Your task to perform on an android device: add a contact Image 0: 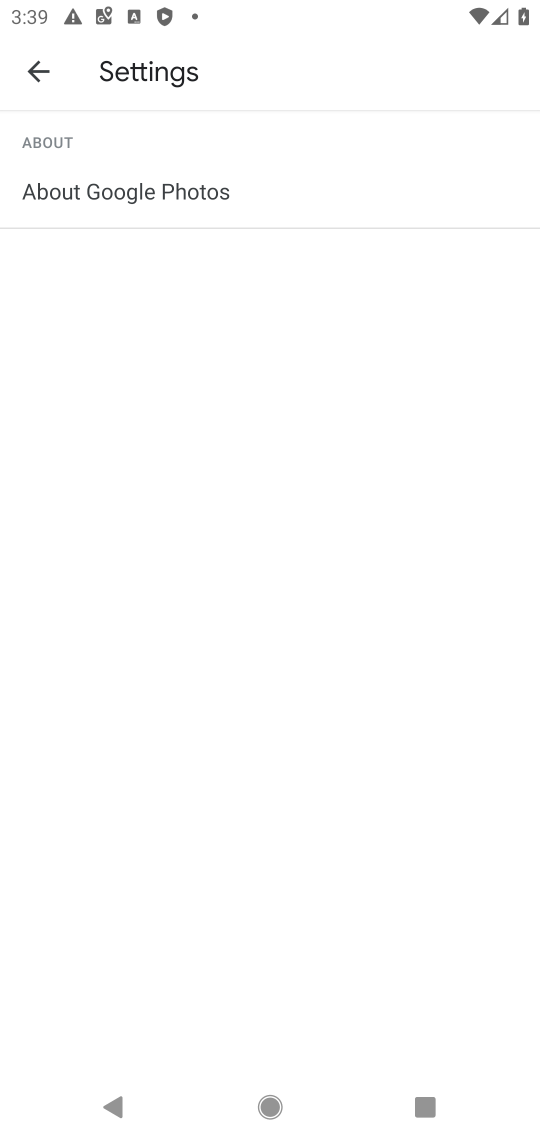
Step 0: press home button
Your task to perform on an android device: add a contact Image 1: 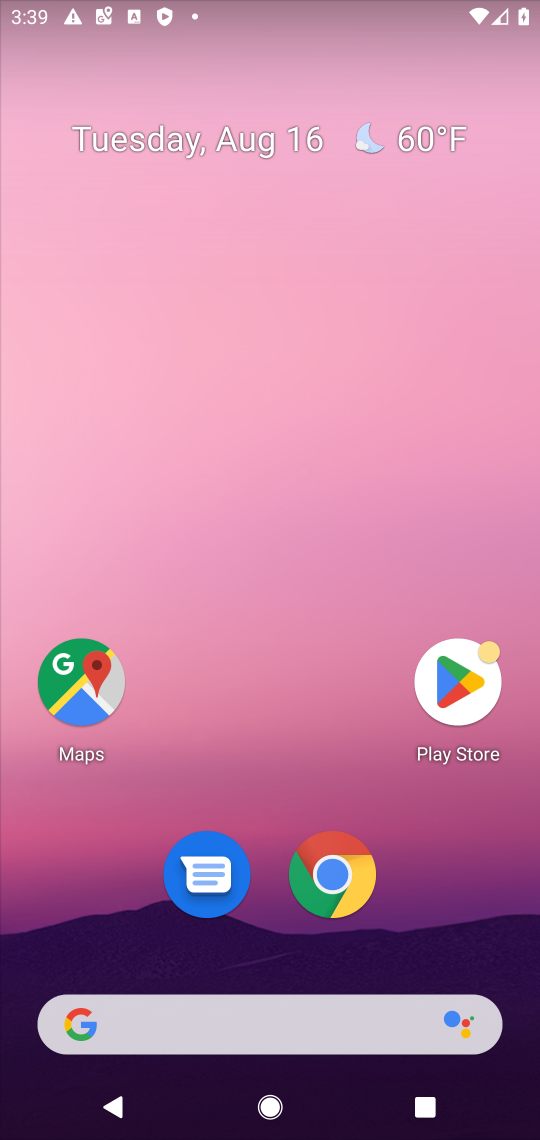
Step 1: drag from (256, 812) to (204, 171)
Your task to perform on an android device: add a contact Image 2: 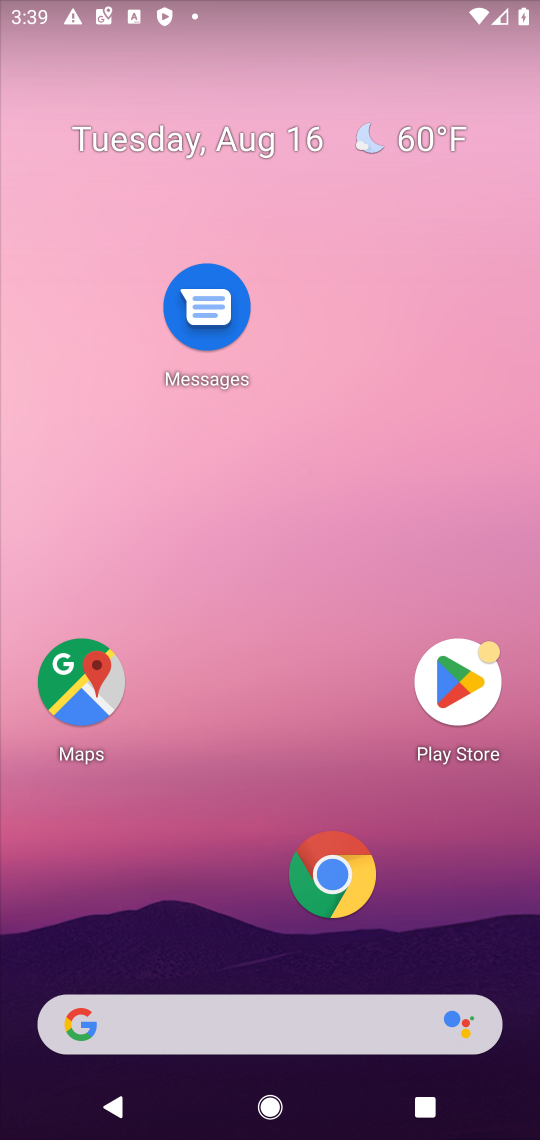
Step 2: drag from (230, 877) to (171, 121)
Your task to perform on an android device: add a contact Image 3: 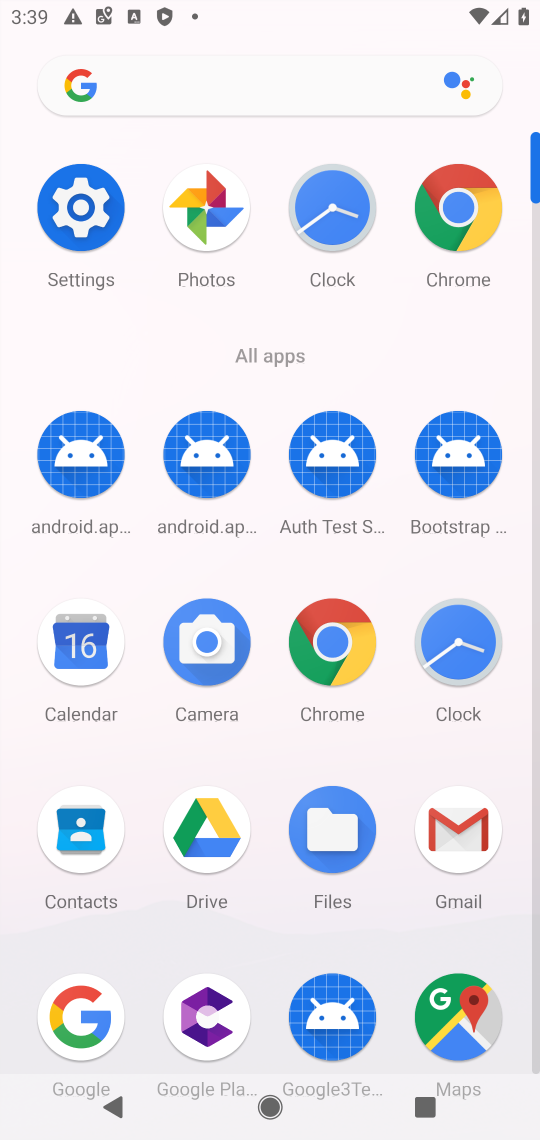
Step 3: click (90, 815)
Your task to perform on an android device: add a contact Image 4: 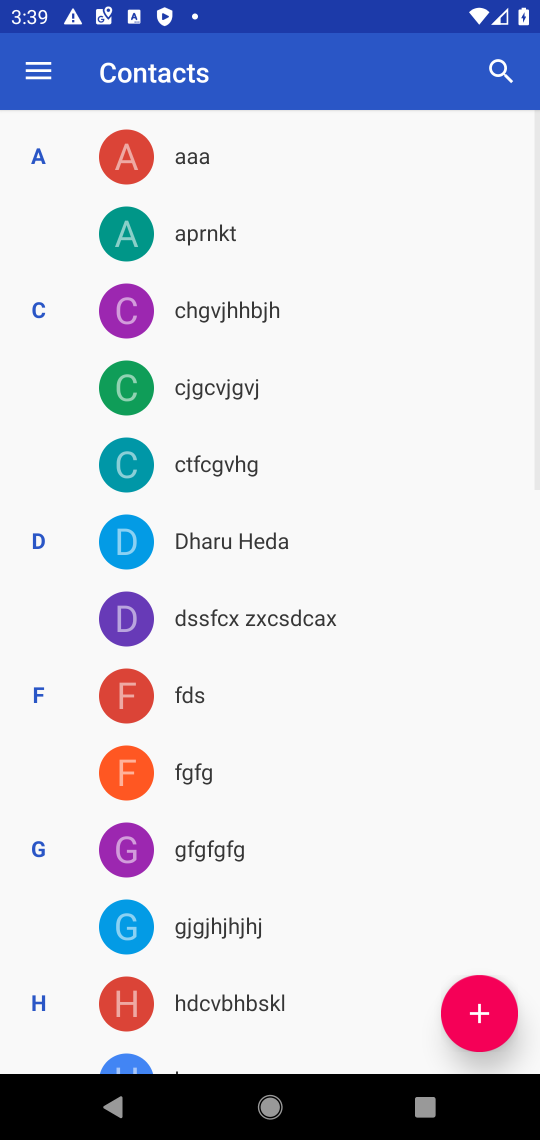
Step 4: click (475, 1023)
Your task to perform on an android device: add a contact Image 5: 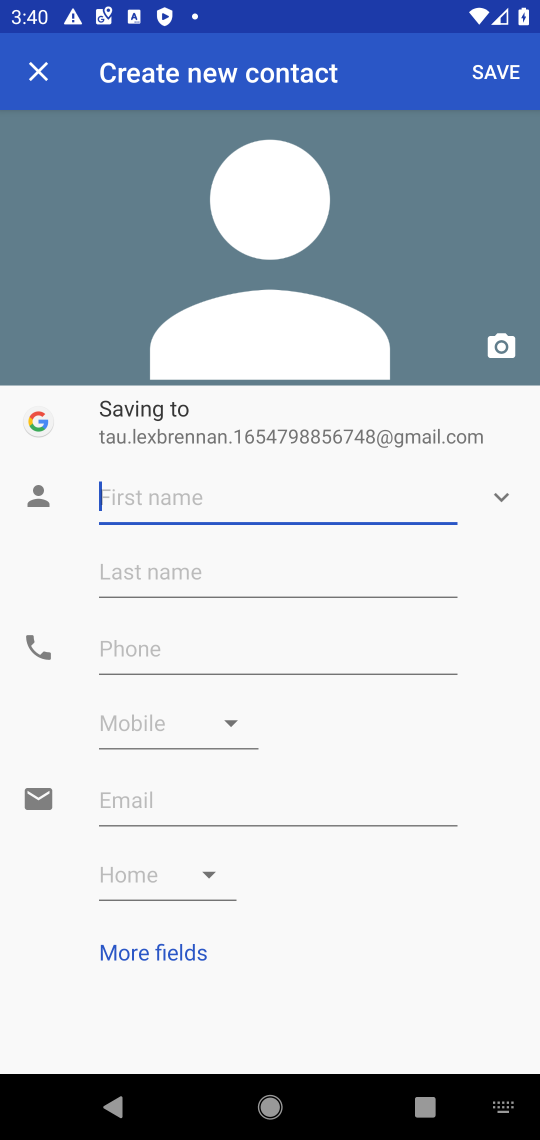
Step 5: task complete